Your task to perform on an android device: What's the news in the Bahamas? Image 0: 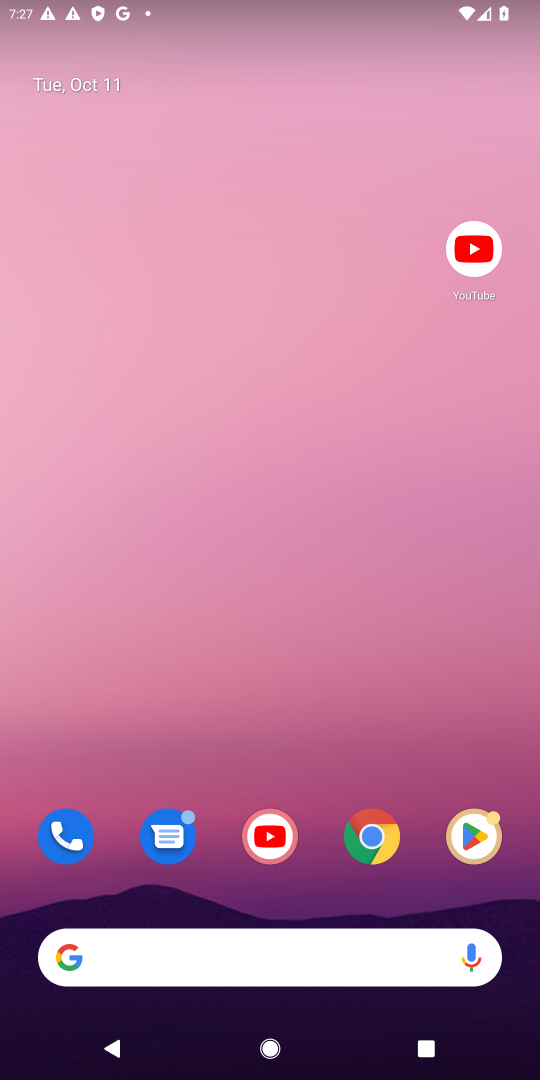
Step 0: click (373, 838)
Your task to perform on an android device: What's the news in the Bahamas? Image 1: 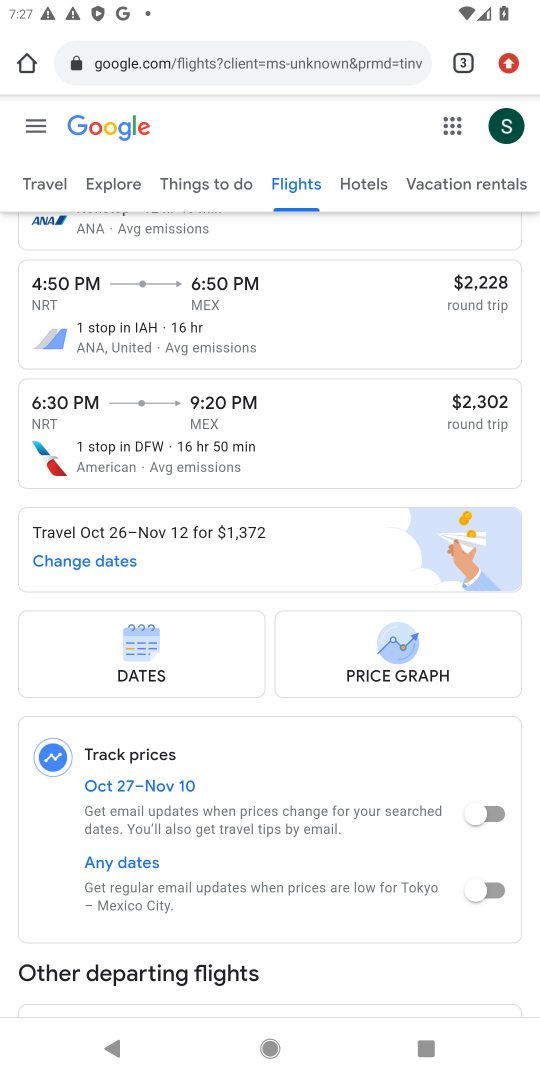
Step 1: click (318, 59)
Your task to perform on an android device: What's the news in the Bahamas? Image 2: 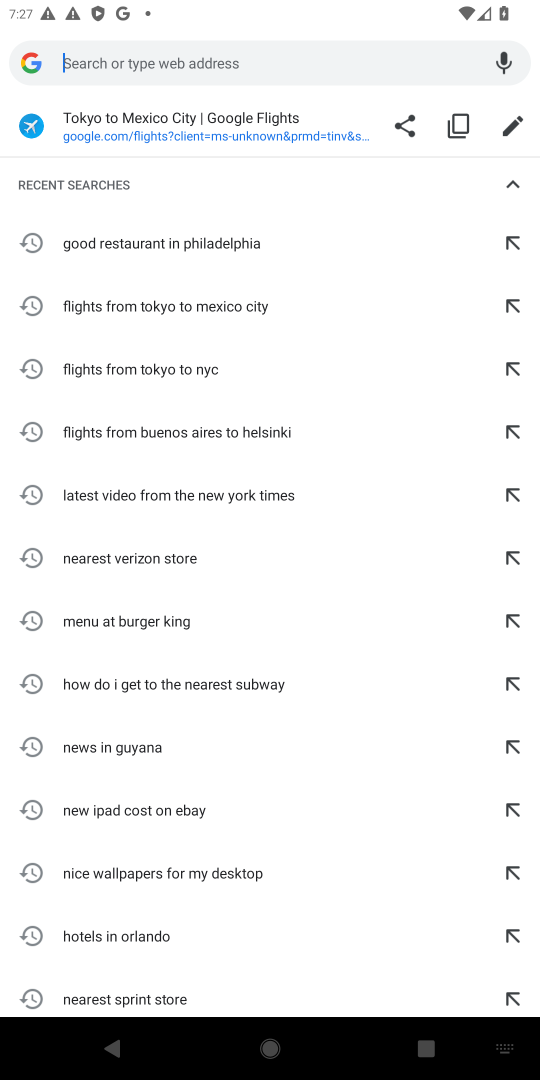
Step 2: type "news in the Bahamas"
Your task to perform on an android device: What's the news in the Bahamas? Image 3: 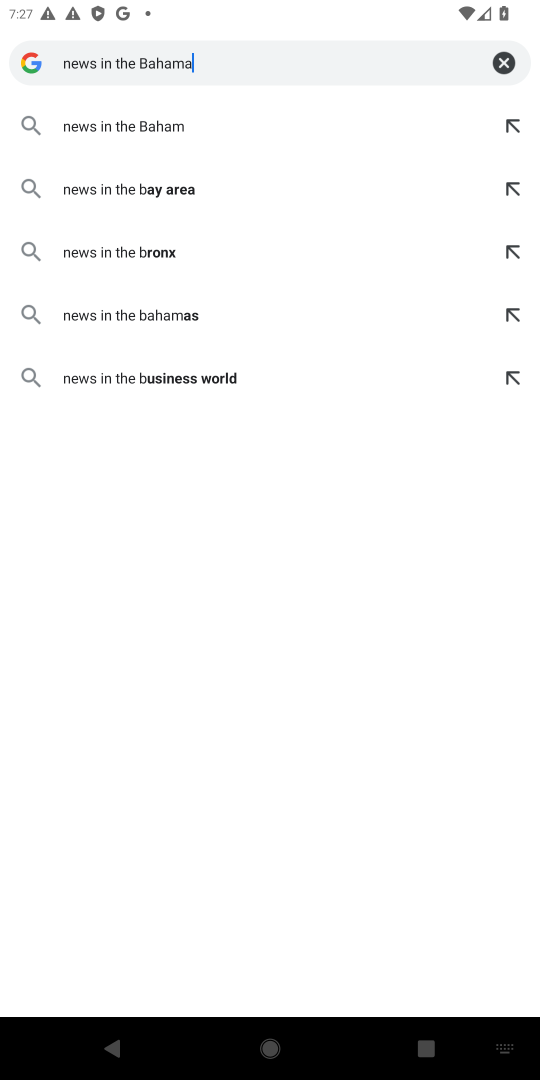
Step 3: press enter
Your task to perform on an android device: What's the news in the Bahamas? Image 4: 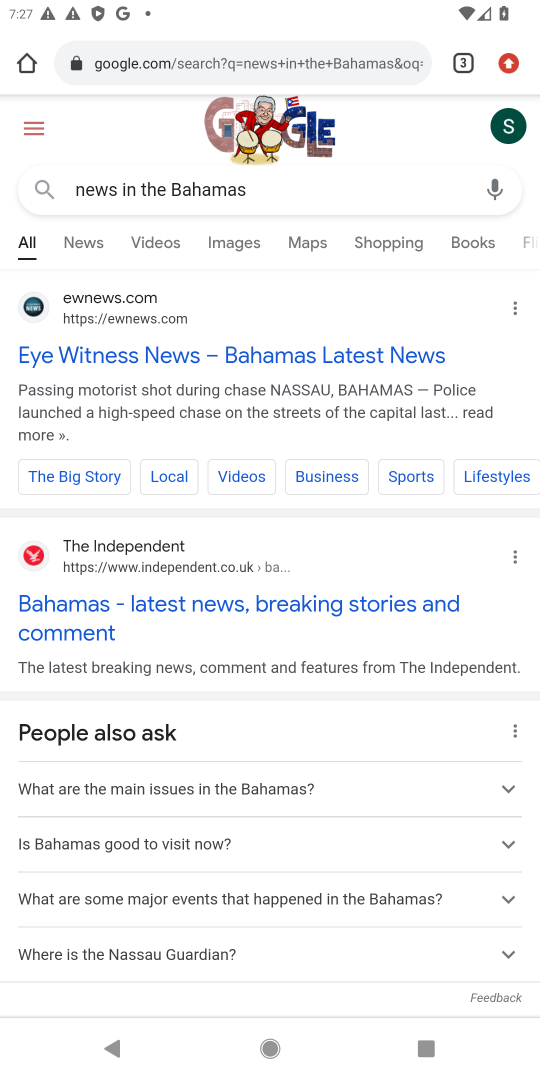
Step 4: click (81, 242)
Your task to perform on an android device: What's the news in the Bahamas? Image 5: 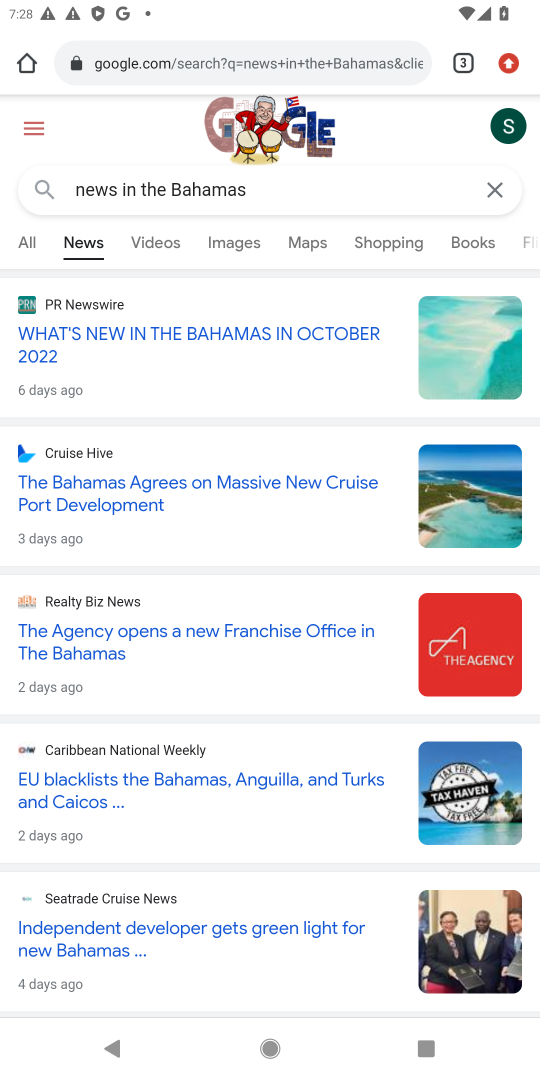
Step 5: task complete